Your task to perform on an android device: open wifi settings Image 0: 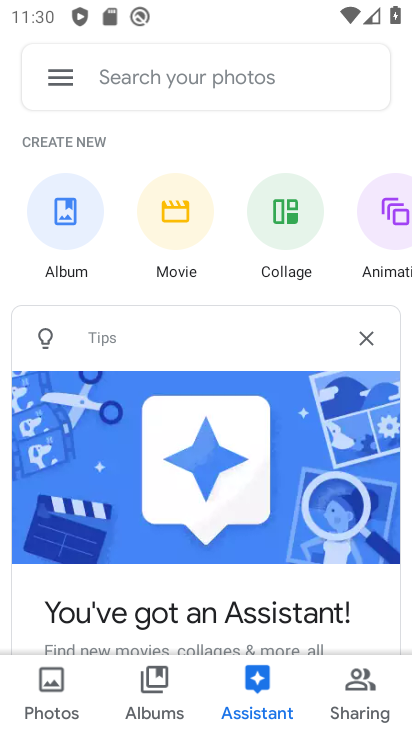
Step 0: press home button
Your task to perform on an android device: open wifi settings Image 1: 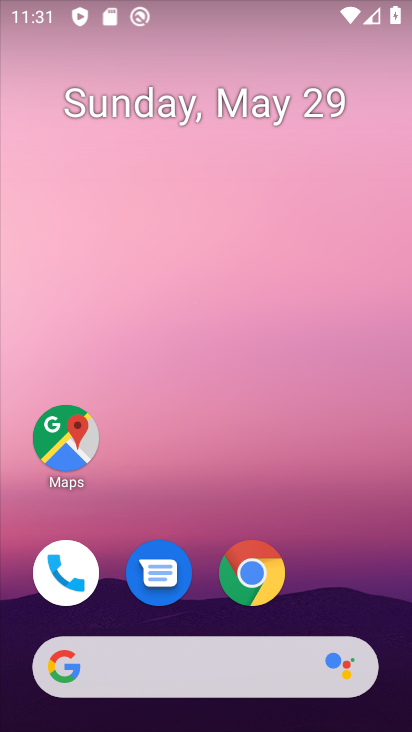
Step 1: drag from (360, 590) to (363, 174)
Your task to perform on an android device: open wifi settings Image 2: 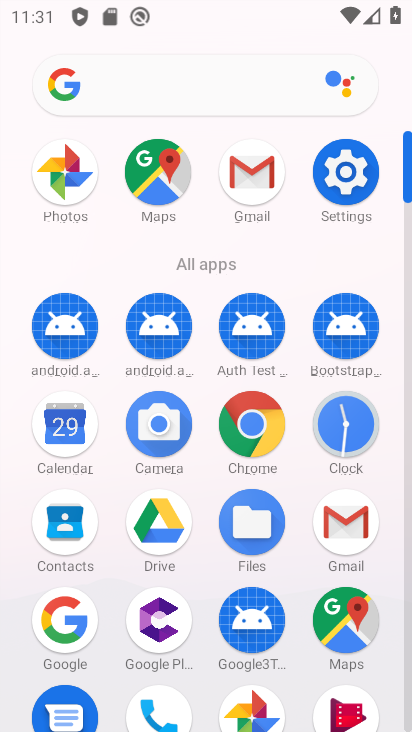
Step 2: click (351, 175)
Your task to perform on an android device: open wifi settings Image 3: 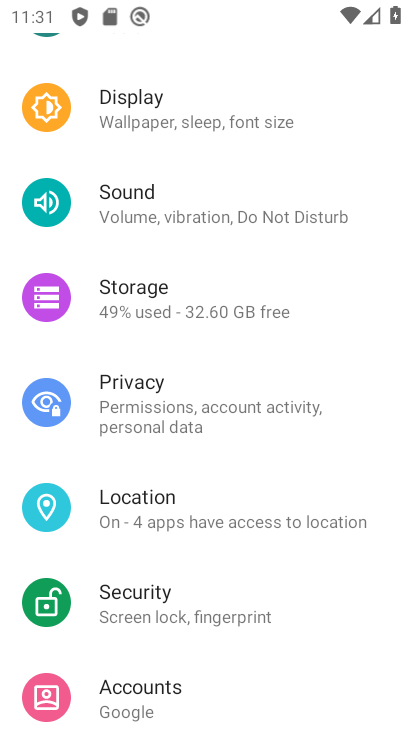
Step 3: drag from (337, 107) to (252, 654)
Your task to perform on an android device: open wifi settings Image 4: 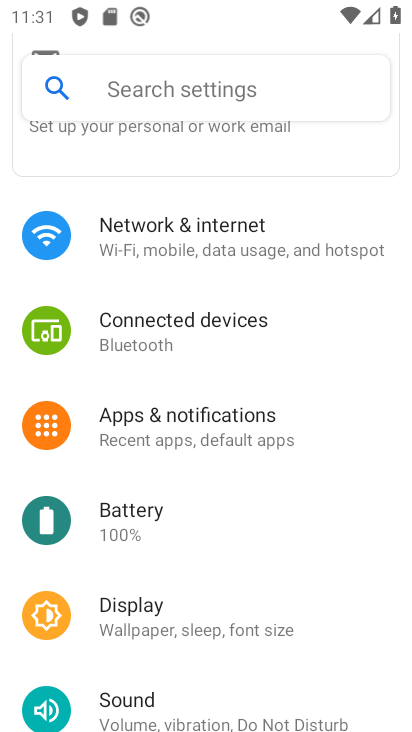
Step 4: click (169, 241)
Your task to perform on an android device: open wifi settings Image 5: 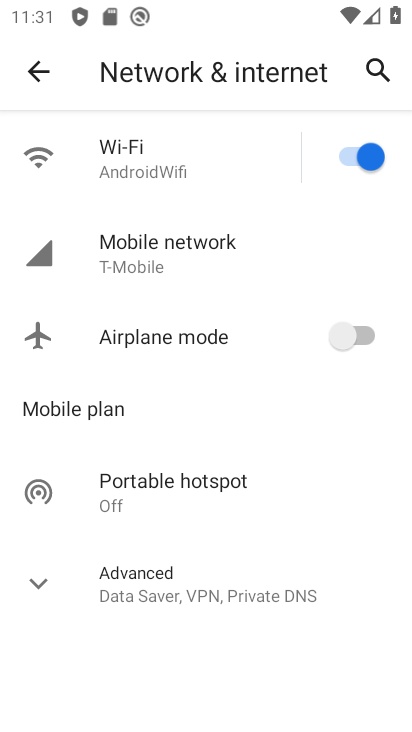
Step 5: click (190, 164)
Your task to perform on an android device: open wifi settings Image 6: 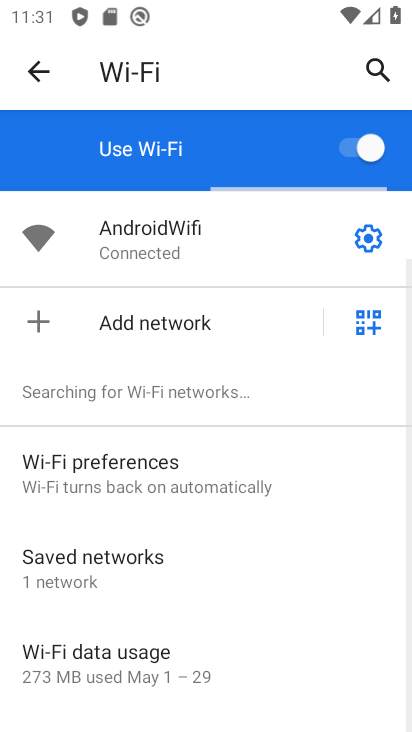
Step 6: task complete